Your task to perform on an android device: toggle show notifications on the lock screen Image 0: 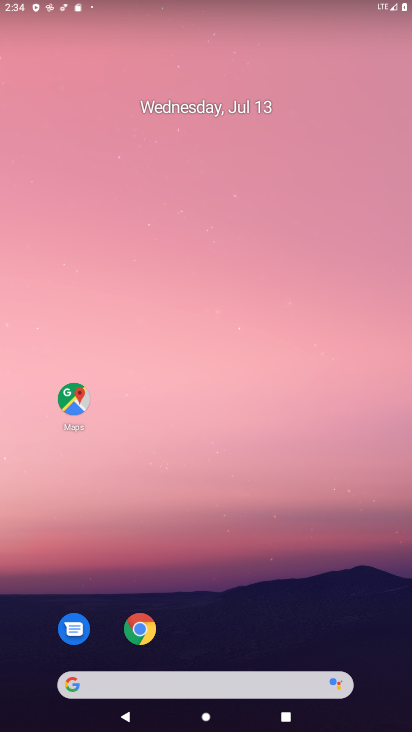
Step 0: drag from (252, 608) to (256, 40)
Your task to perform on an android device: toggle show notifications on the lock screen Image 1: 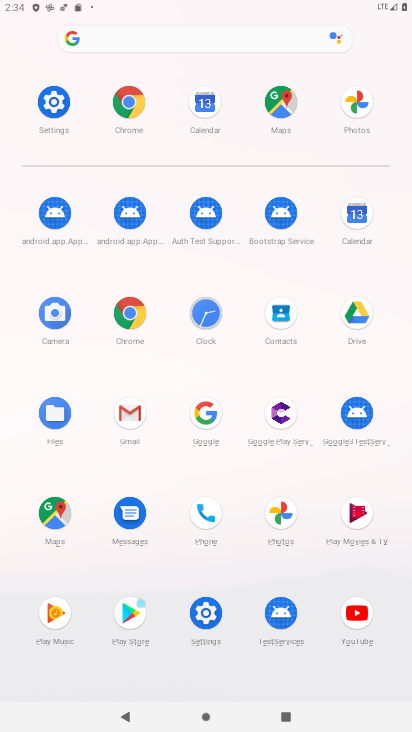
Step 1: click (61, 117)
Your task to perform on an android device: toggle show notifications on the lock screen Image 2: 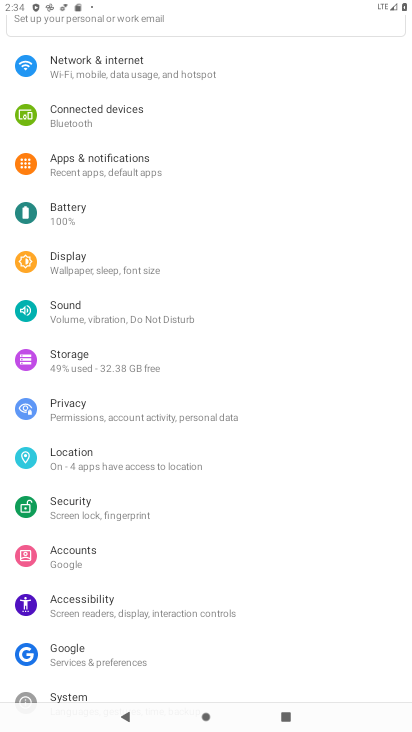
Step 2: click (92, 181)
Your task to perform on an android device: toggle show notifications on the lock screen Image 3: 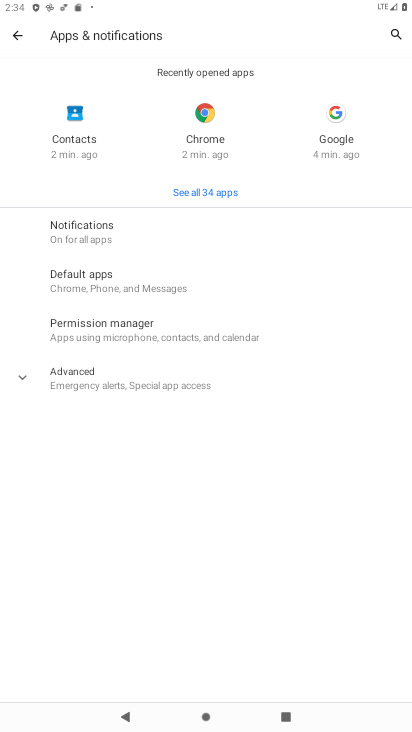
Step 3: task complete